Your task to perform on an android device: Open Google Image 0: 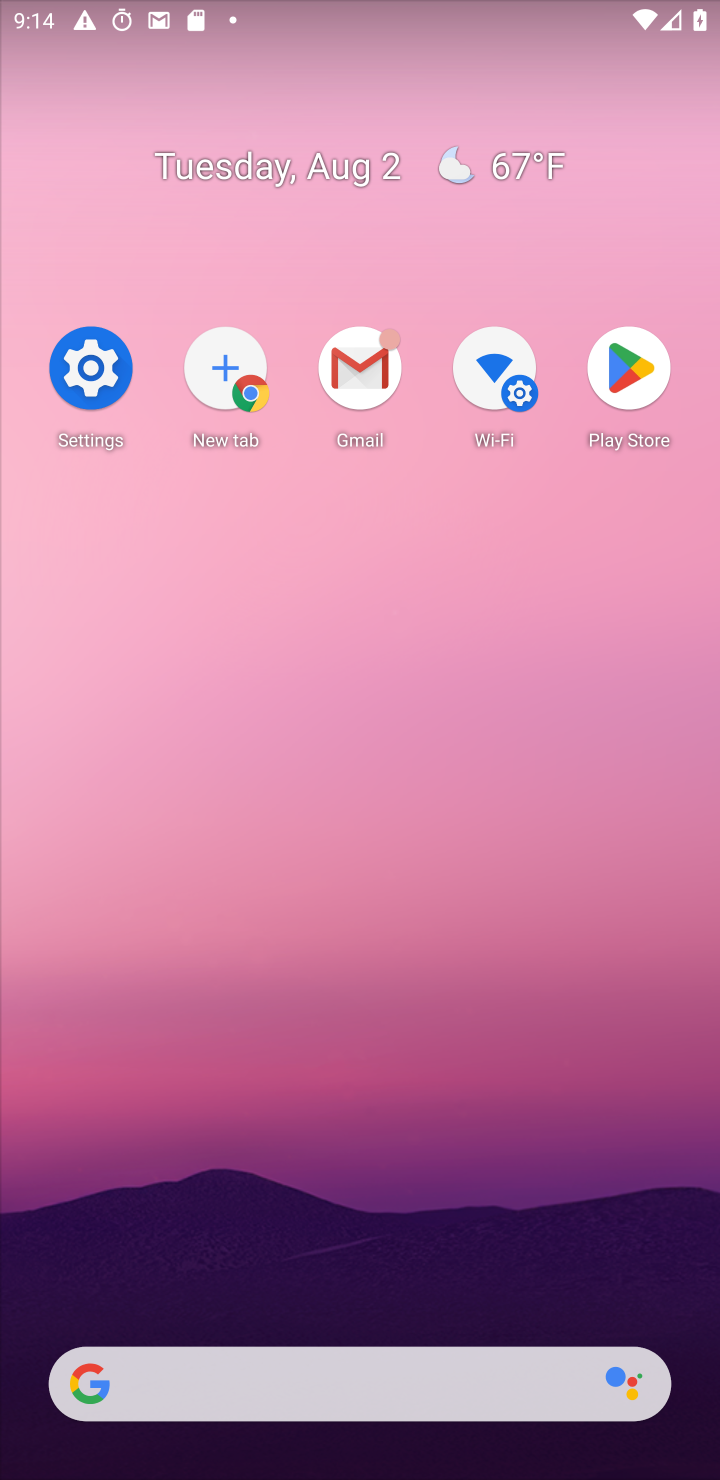
Step 0: click (248, 499)
Your task to perform on an android device: Open Google Image 1: 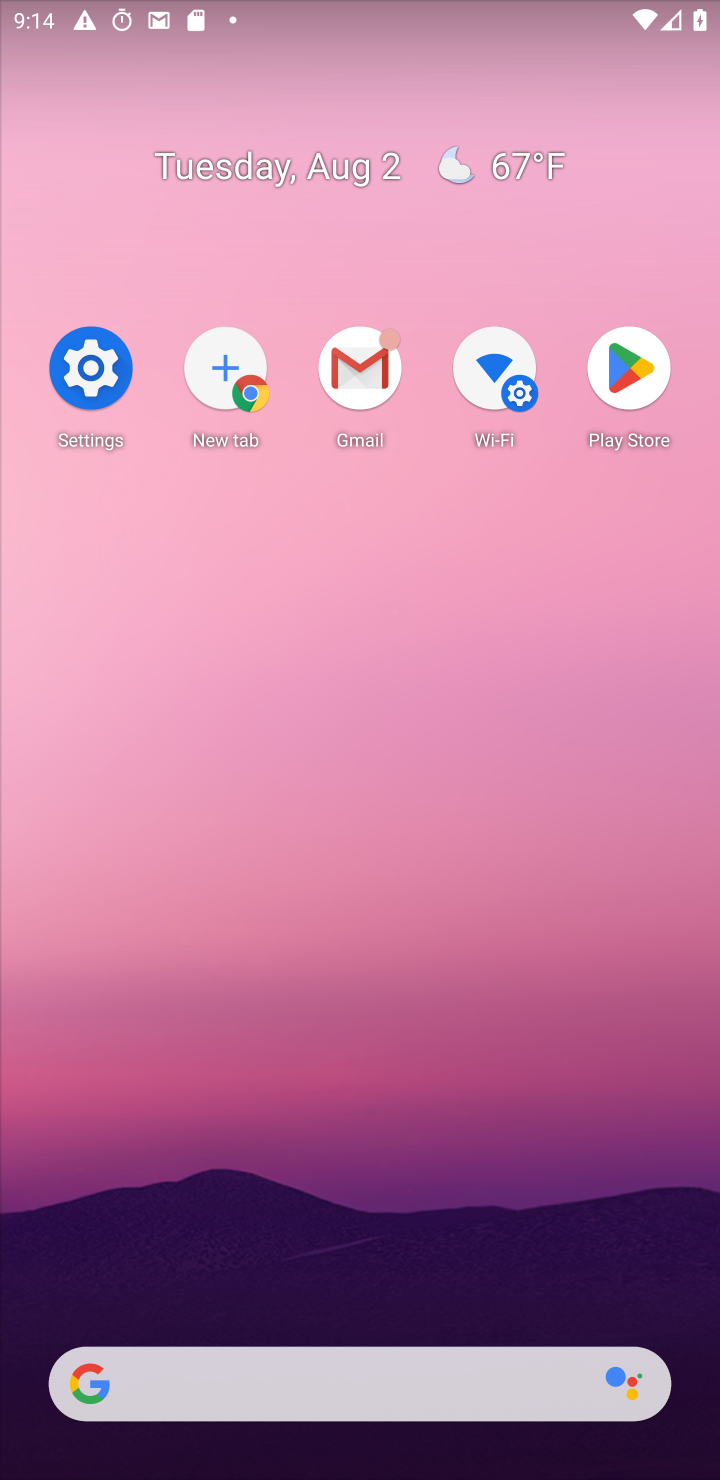
Step 1: drag from (391, 1108) to (348, 310)
Your task to perform on an android device: Open Google Image 2: 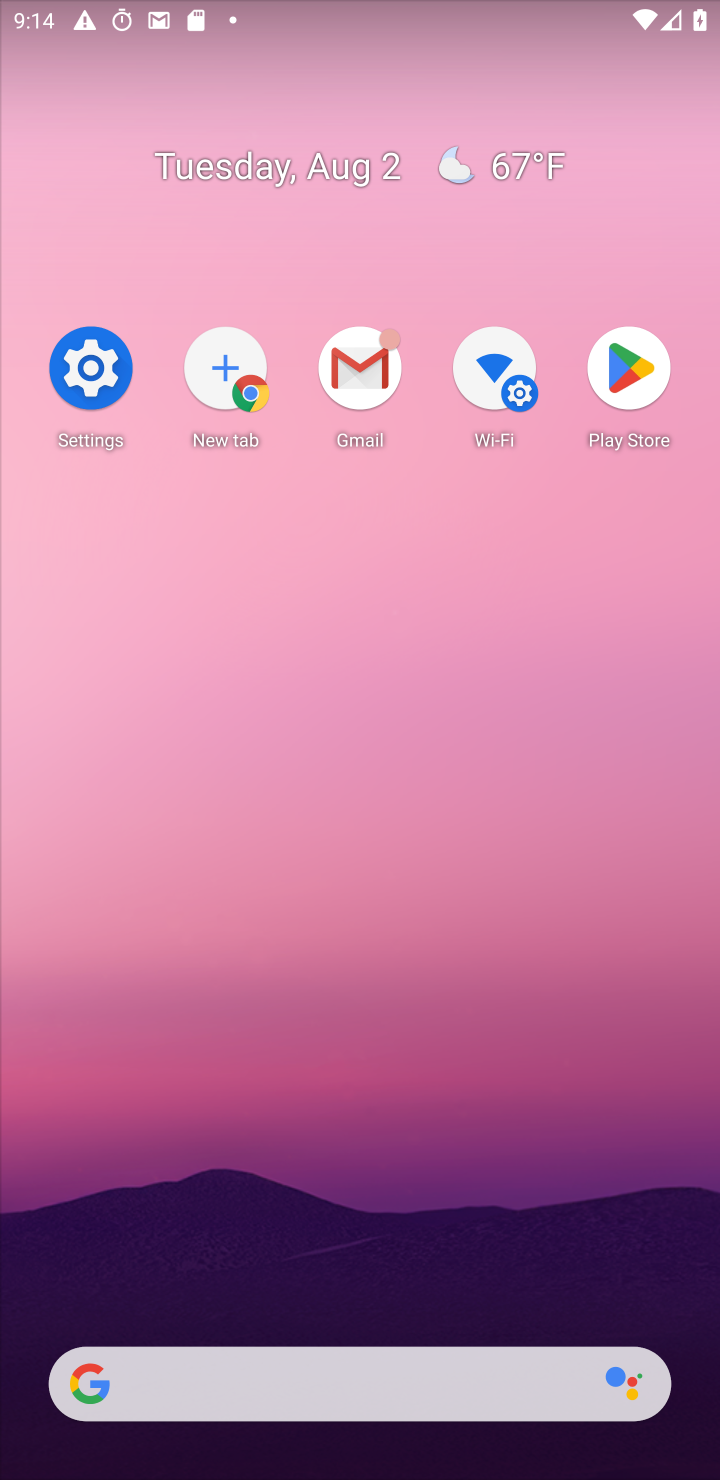
Step 2: click (320, 328)
Your task to perform on an android device: Open Google Image 3: 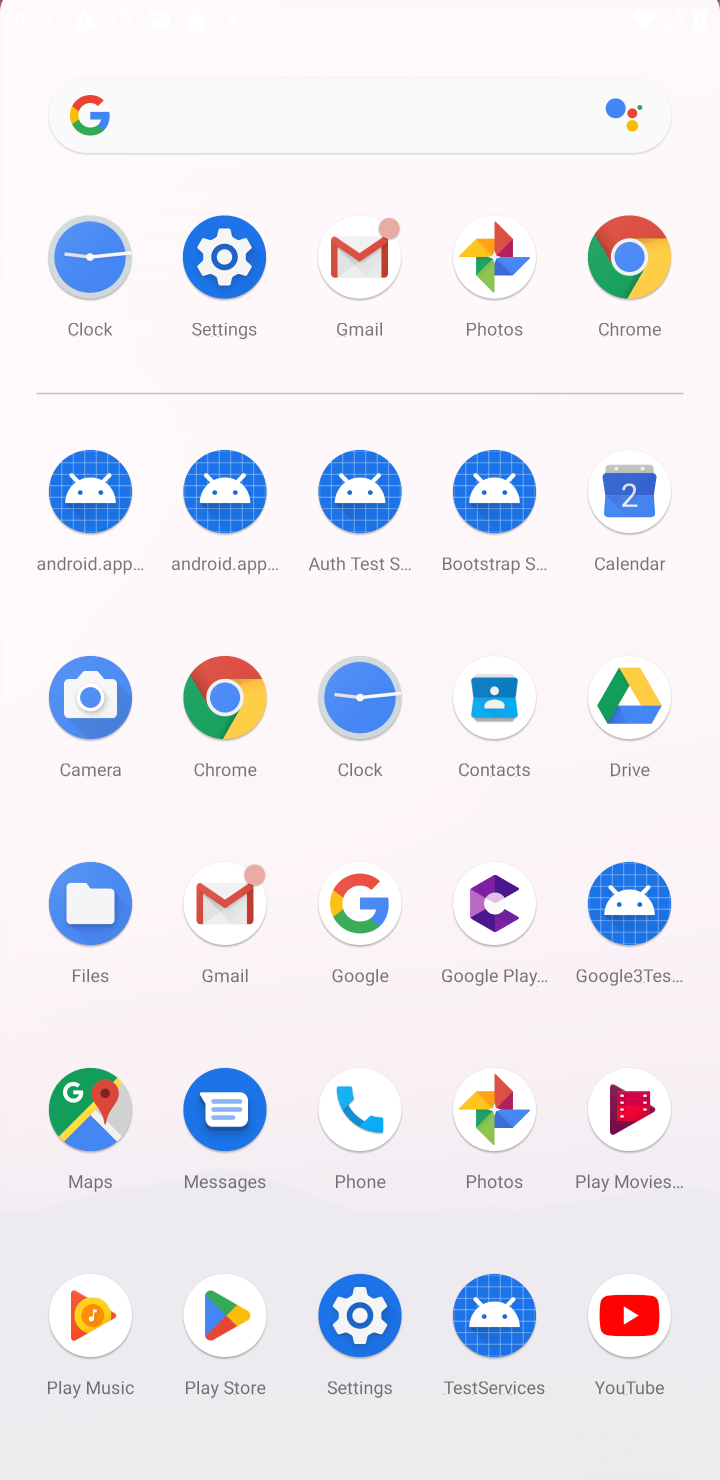
Step 3: drag from (282, 758) to (164, 95)
Your task to perform on an android device: Open Google Image 4: 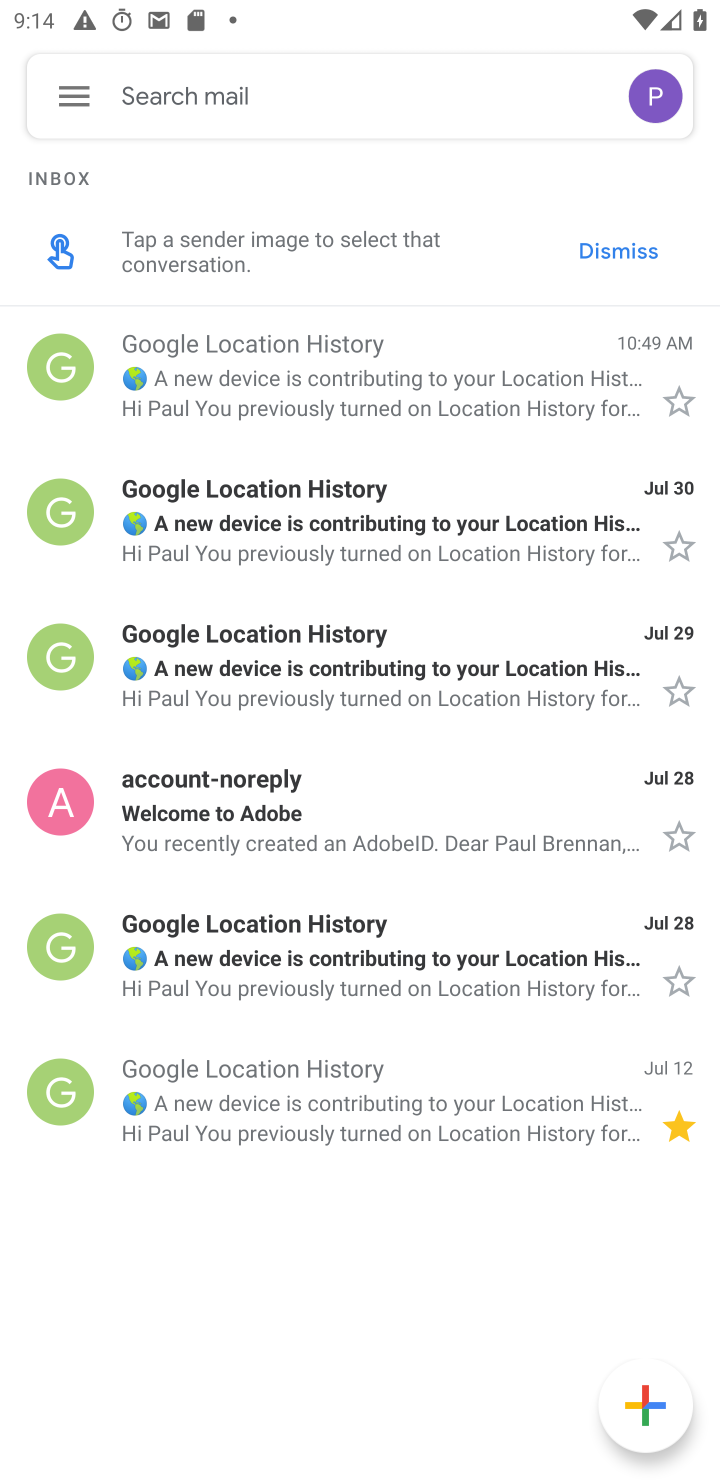
Step 4: press back button
Your task to perform on an android device: Open Google Image 5: 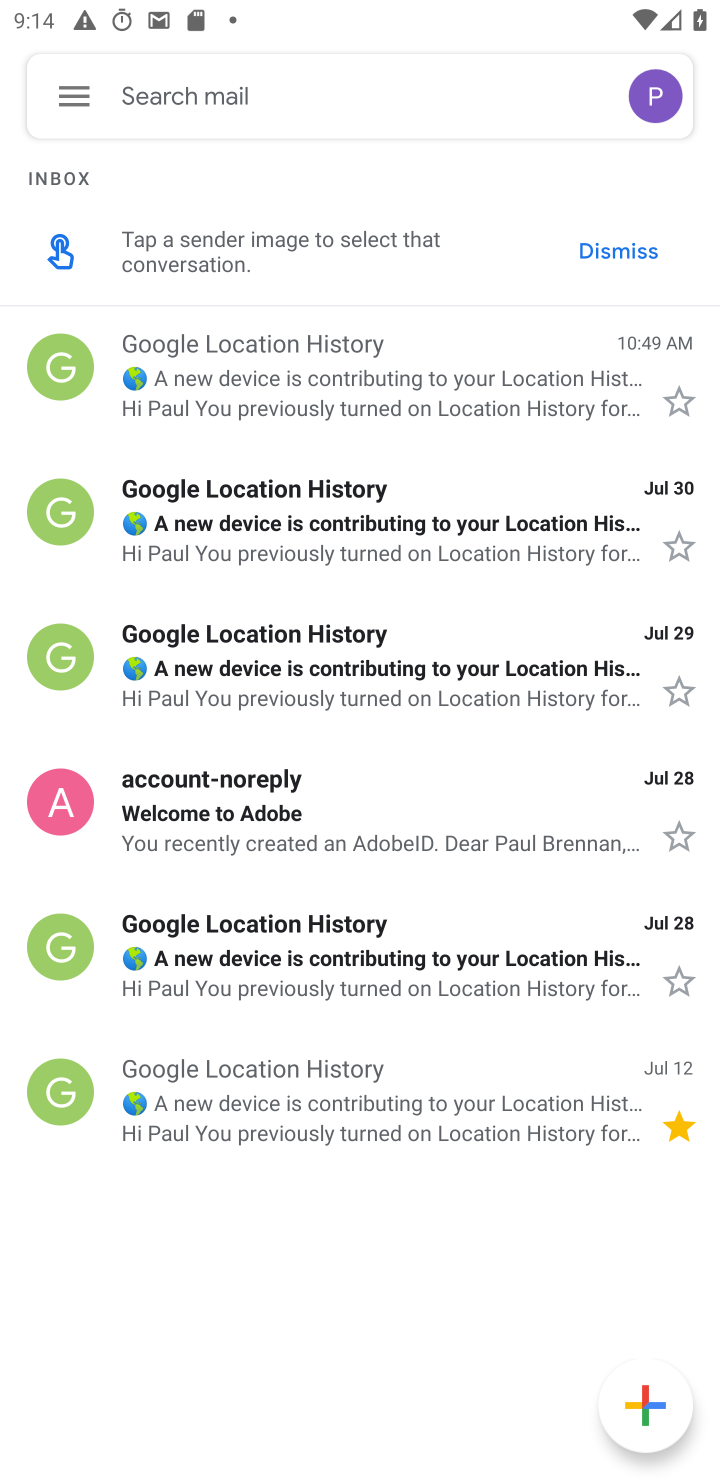
Step 5: press back button
Your task to perform on an android device: Open Google Image 6: 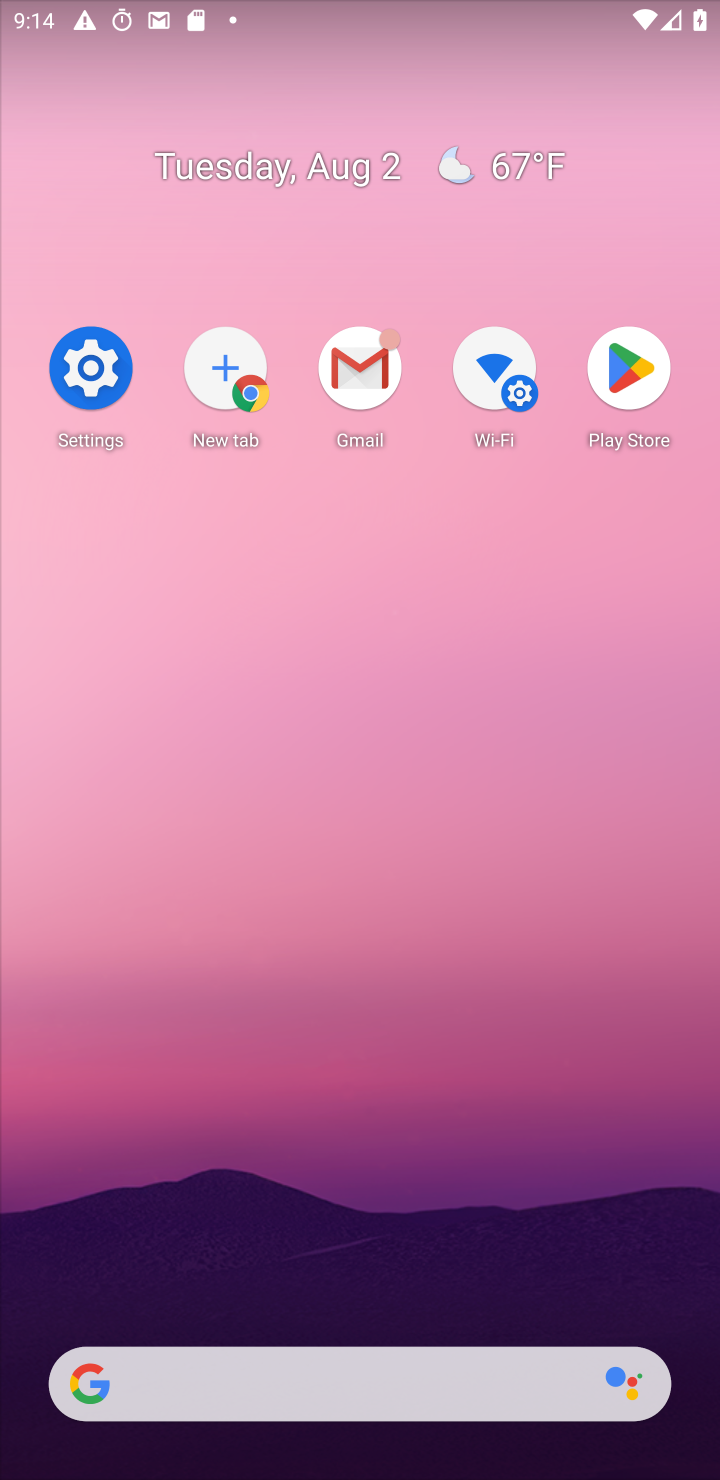
Step 6: press home button
Your task to perform on an android device: Open Google Image 7: 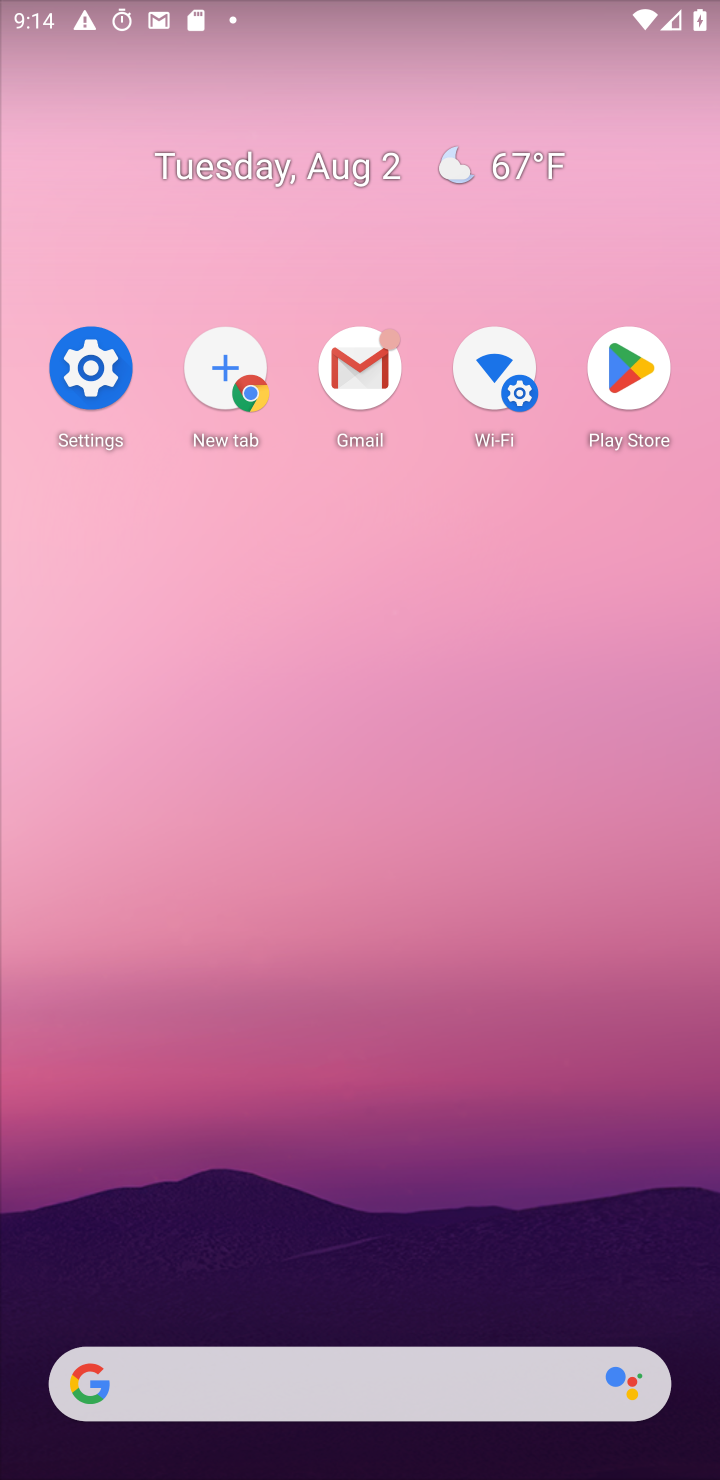
Step 7: press back button
Your task to perform on an android device: Open Google Image 8: 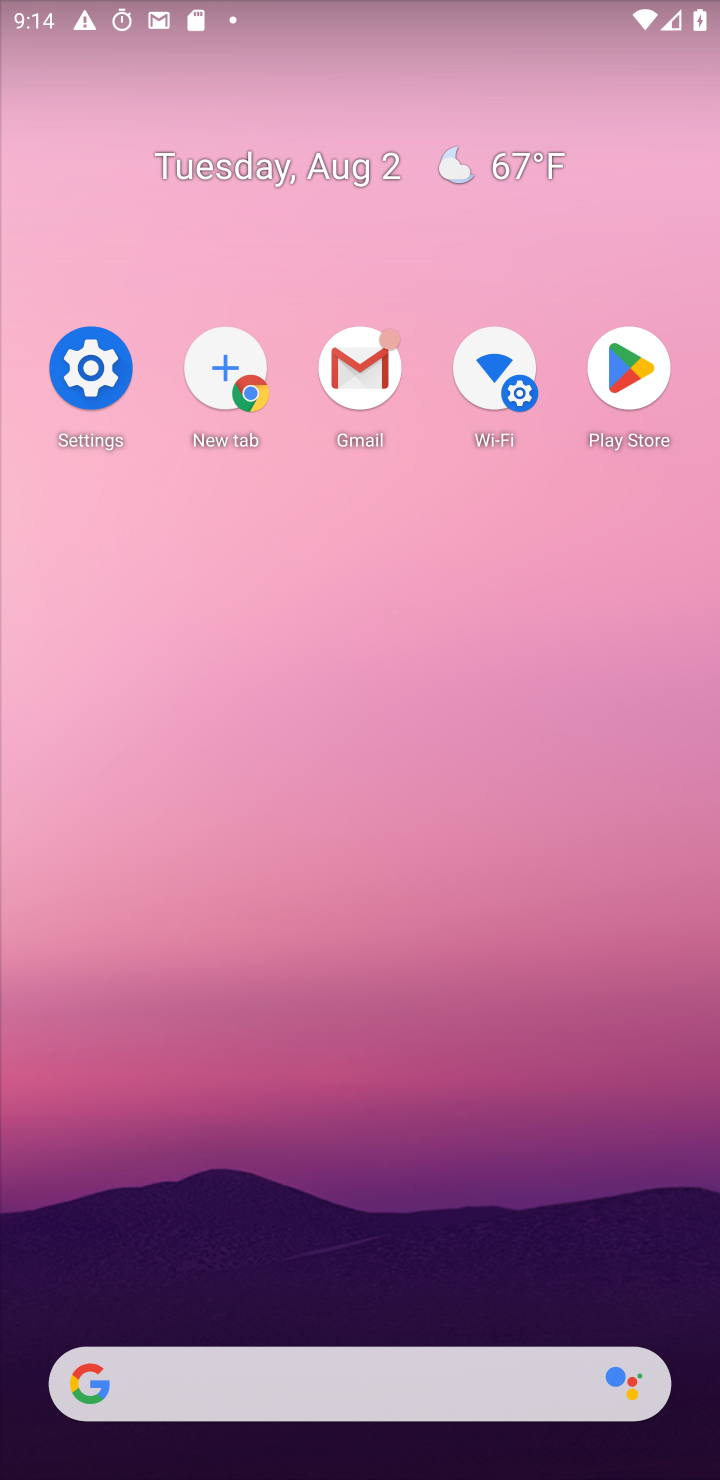
Step 8: drag from (311, 287) to (311, 122)
Your task to perform on an android device: Open Google Image 9: 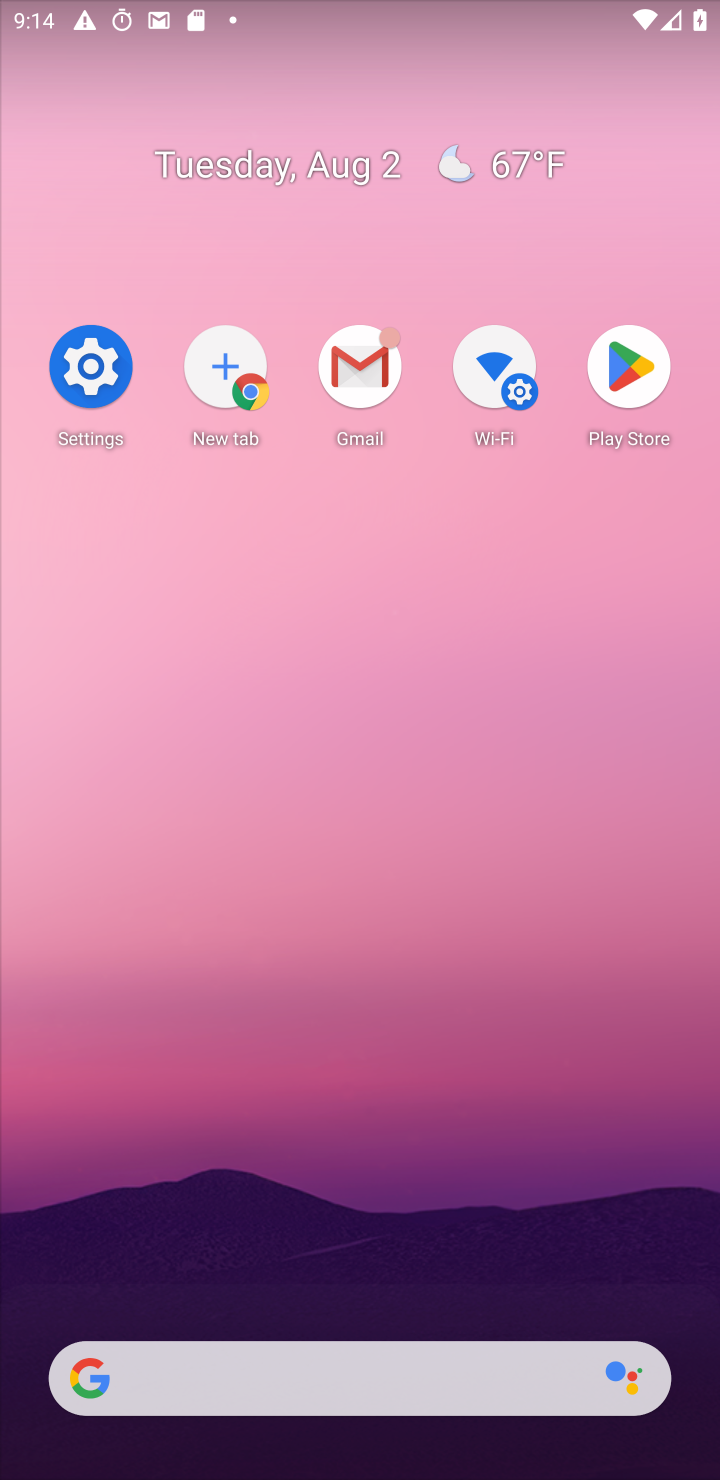
Step 9: drag from (298, 763) to (284, 126)
Your task to perform on an android device: Open Google Image 10: 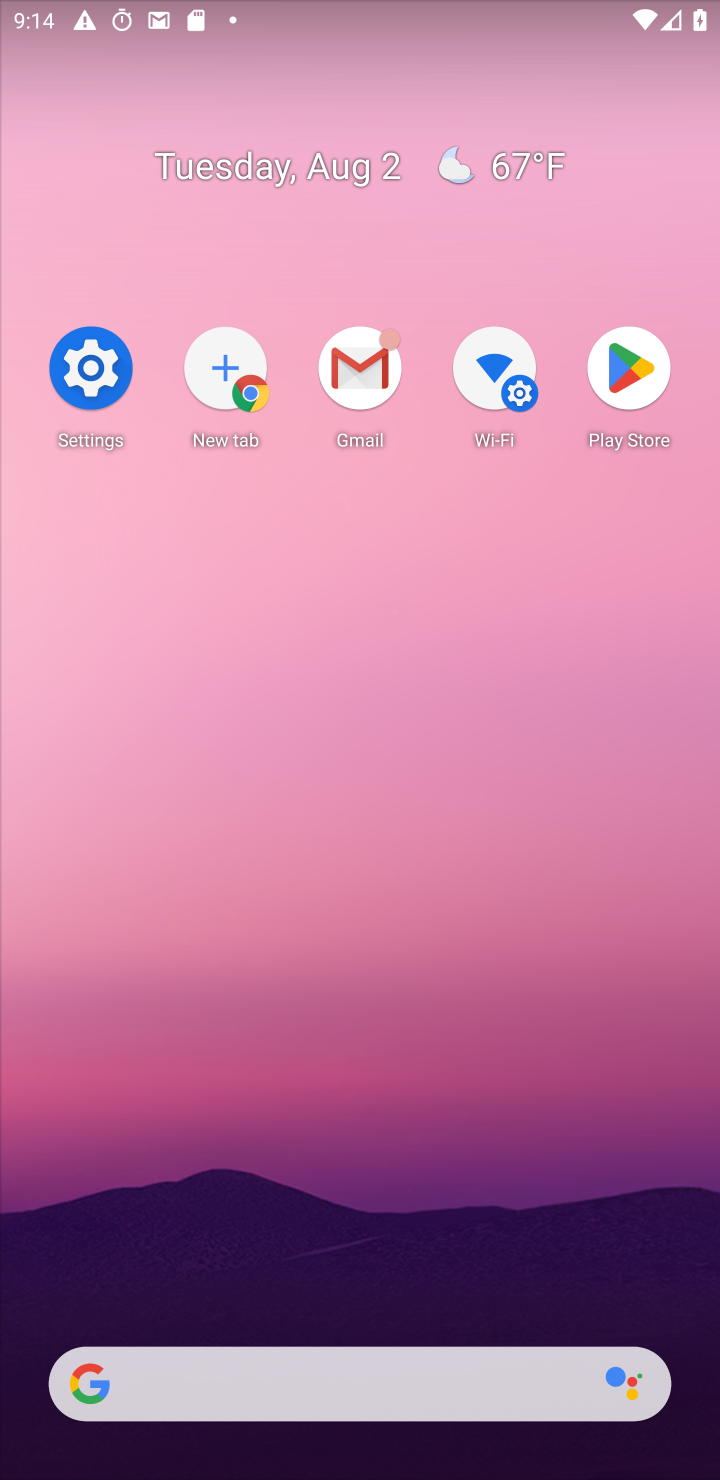
Step 10: drag from (404, 707) to (376, 204)
Your task to perform on an android device: Open Google Image 11: 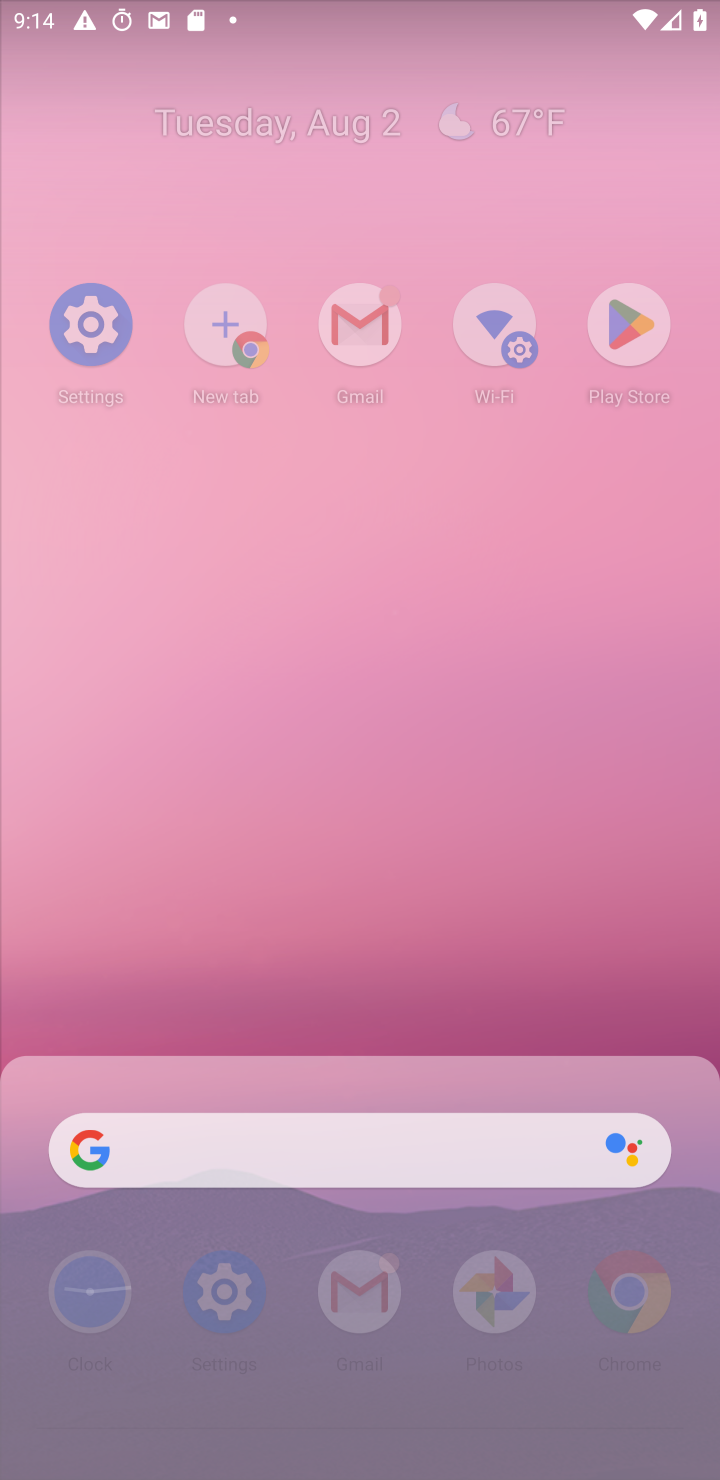
Step 11: drag from (407, 887) to (329, 88)
Your task to perform on an android device: Open Google Image 12: 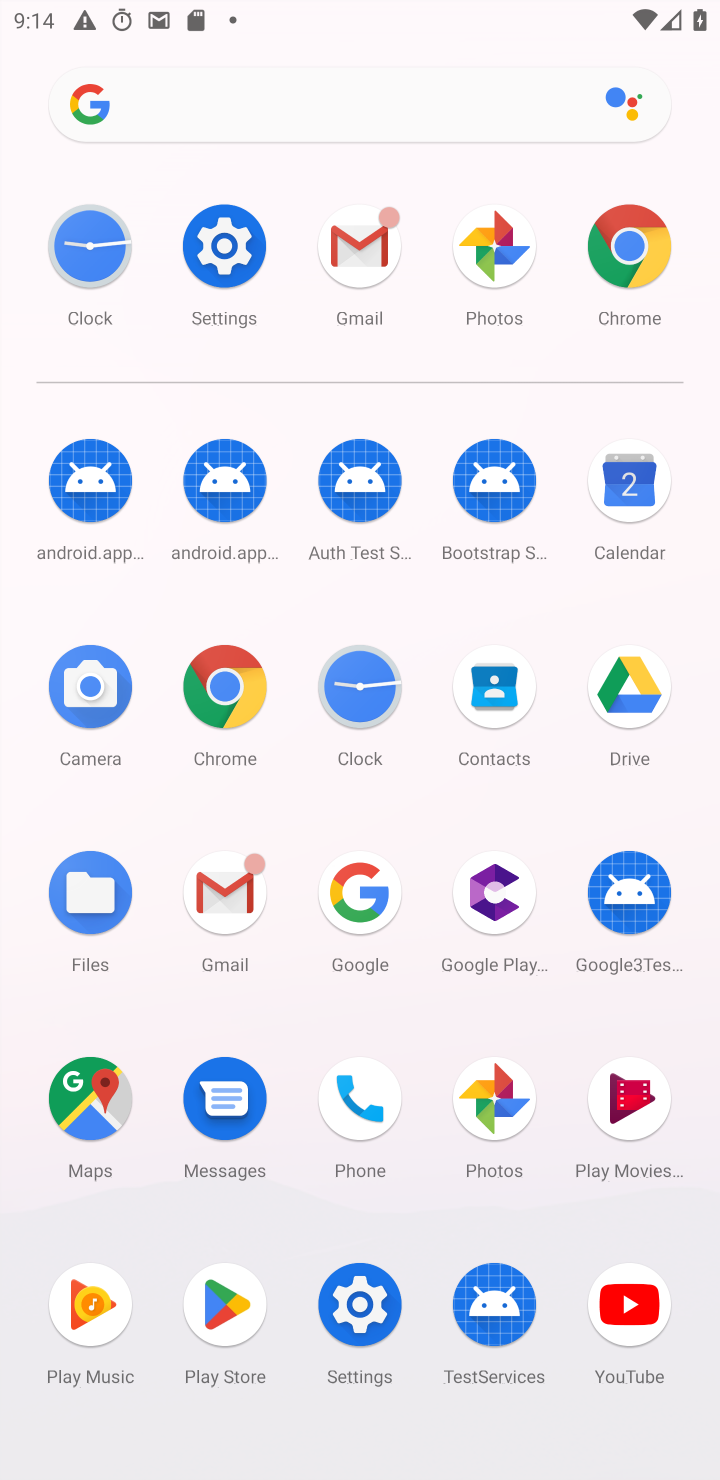
Step 12: click (368, 909)
Your task to perform on an android device: Open Google Image 13: 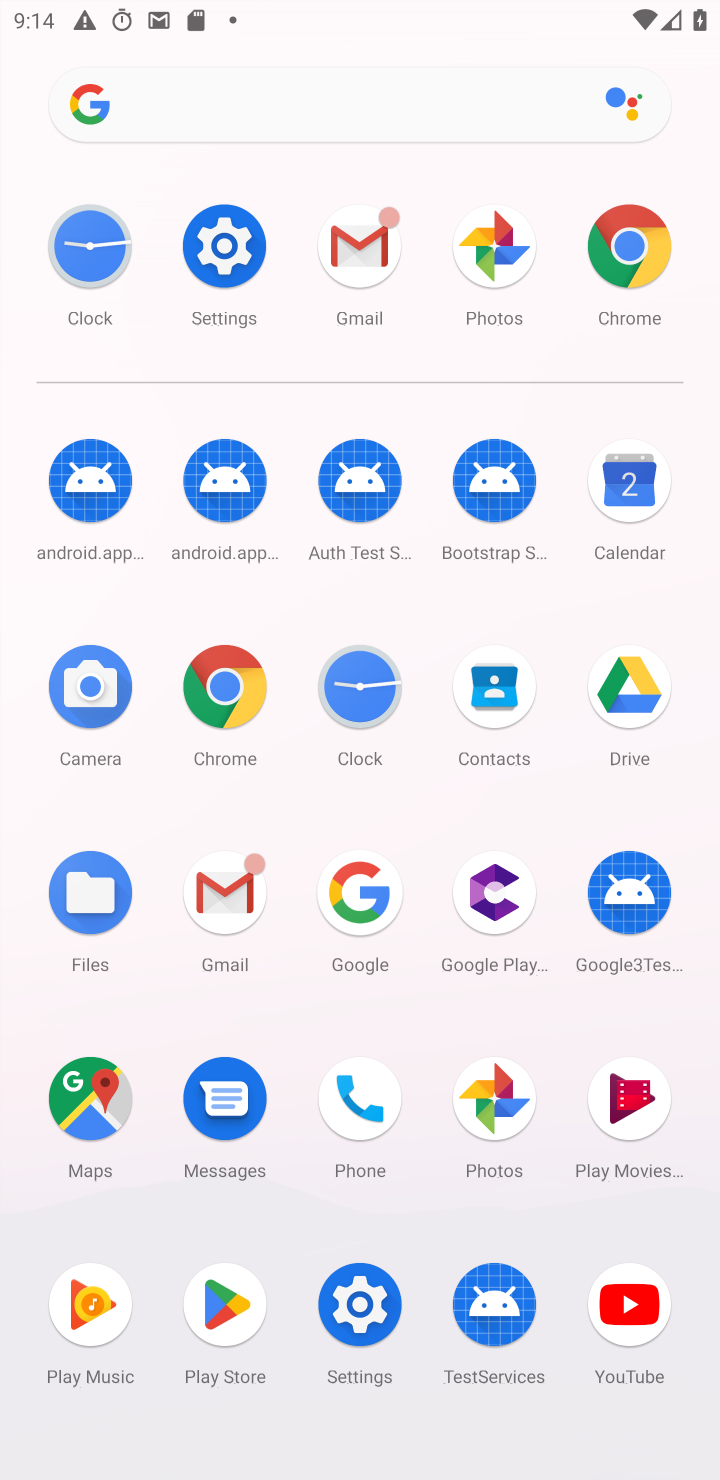
Step 13: click (370, 909)
Your task to perform on an android device: Open Google Image 14: 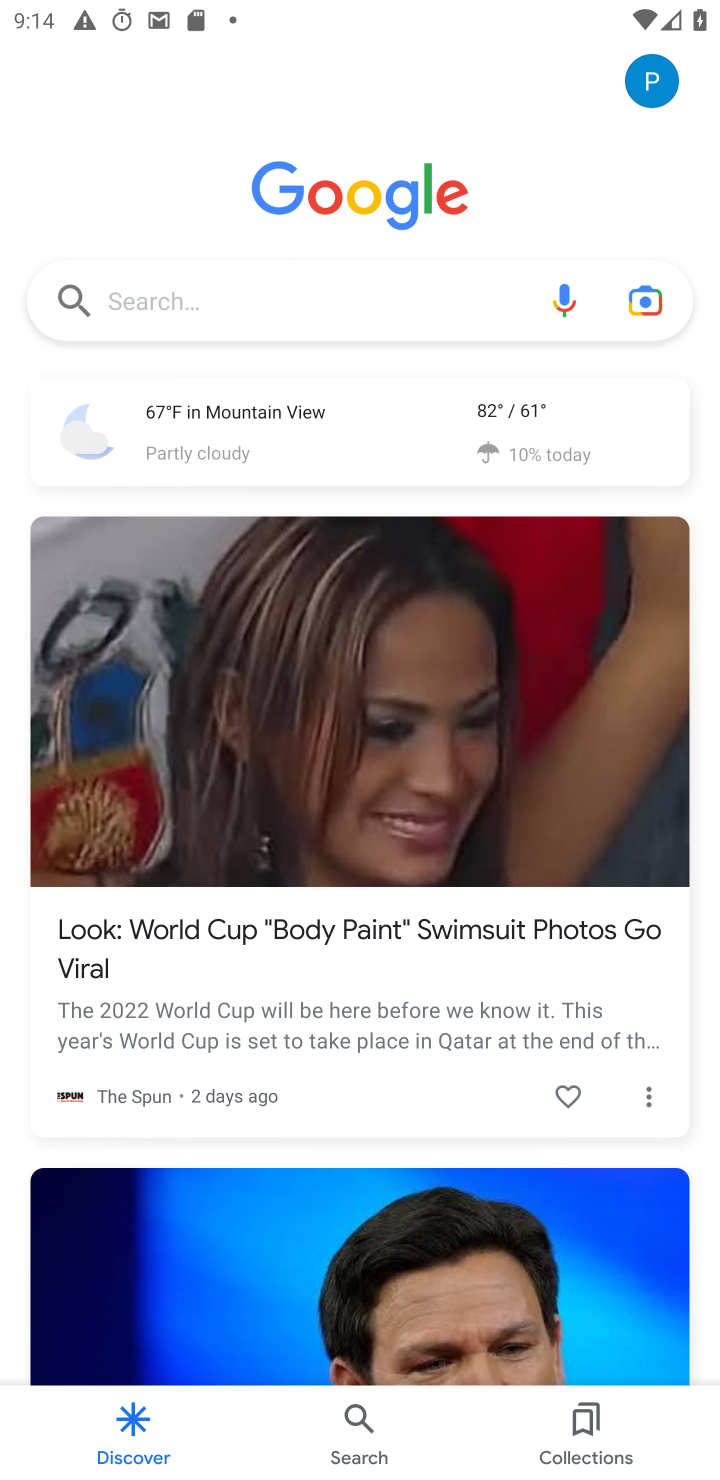
Step 14: task complete